Your task to perform on an android device: open chrome privacy settings Image 0: 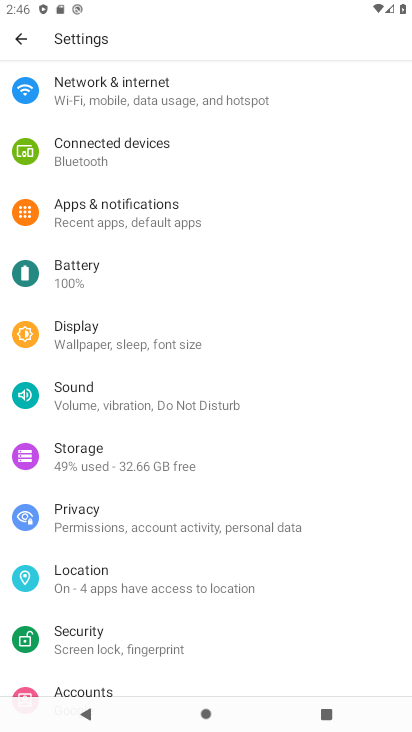
Step 0: press back button
Your task to perform on an android device: open chrome privacy settings Image 1: 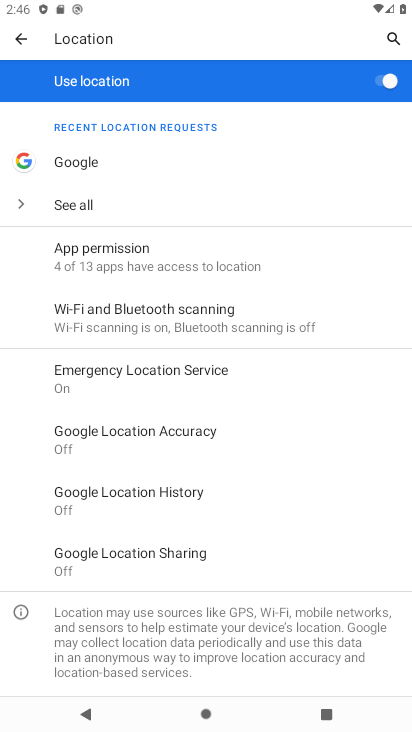
Step 1: press back button
Your task to perform on an android device: open chrome privacy settings Image 2: 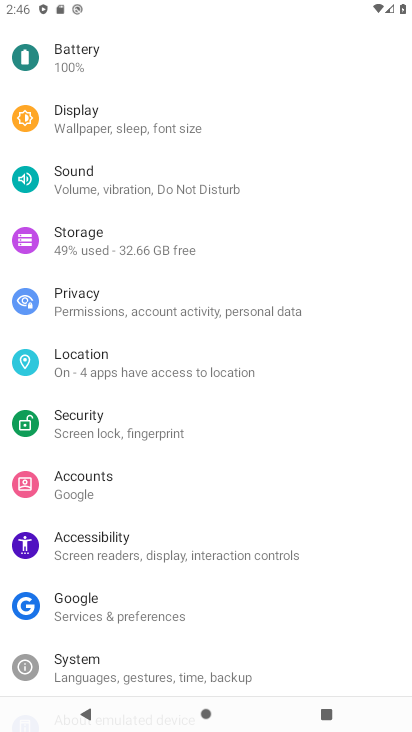
Step 2: press back button
Your task to perform on an android device: open chrome privacy settings Image 3: 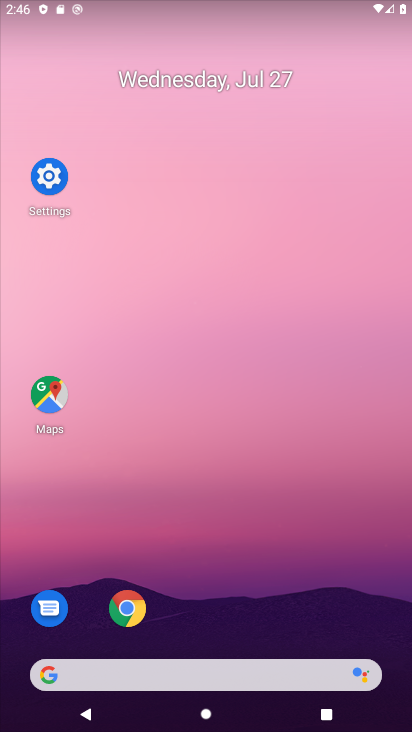
Step 3: click (124, 621)
Your task to perform on an android device: open chrome privacy settings Image 4: 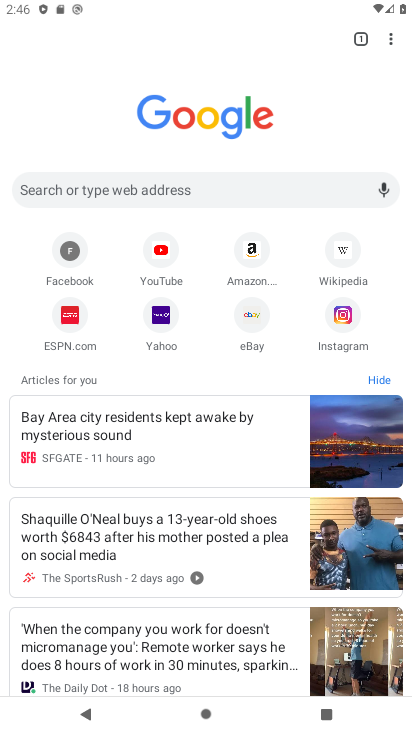
Step 4: click (389, 32)
Your task to perform on an android device: open chrome privacy settings Image 5: 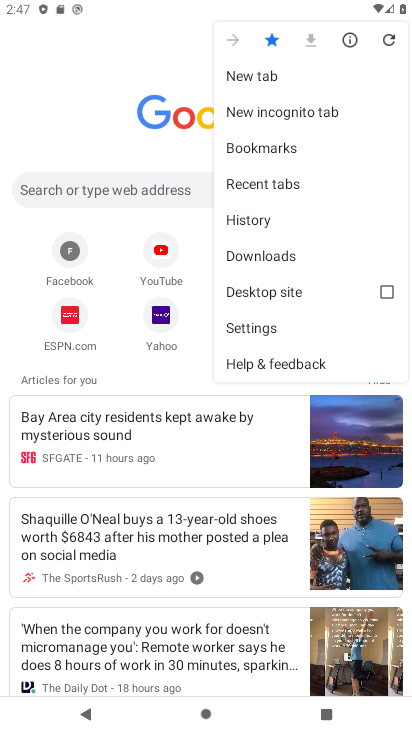
Step 5: click (271, 338)
Your task to perform on an android device: open chrome privacy settings Image 6: 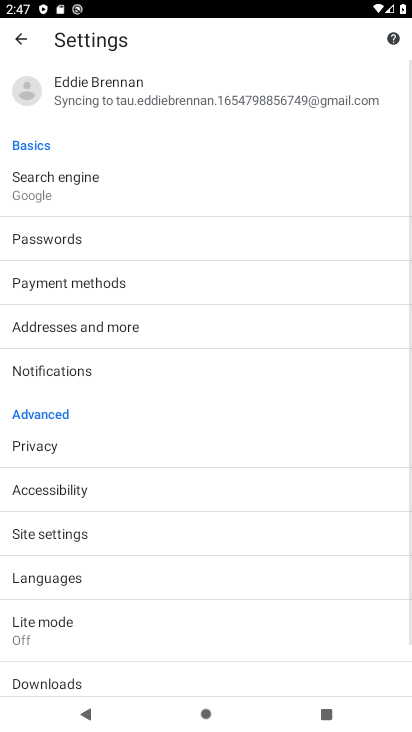
Step 6: click (141, 452)
Your task to perform on an android device: open chrome privacy settings Image 7: 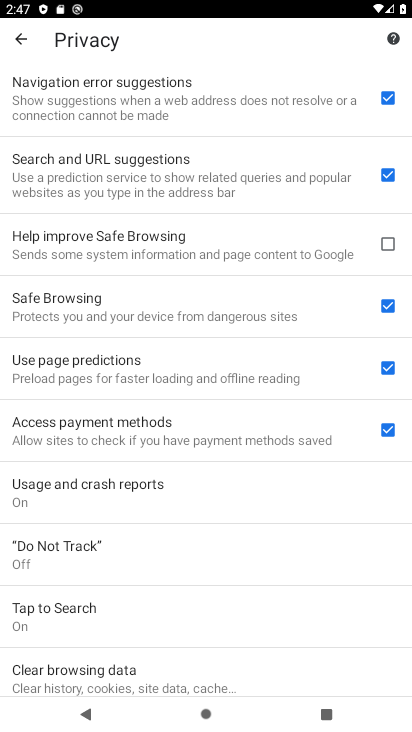
Step 7: task complete